Your task to perform on an android device: check battery use Image 0: 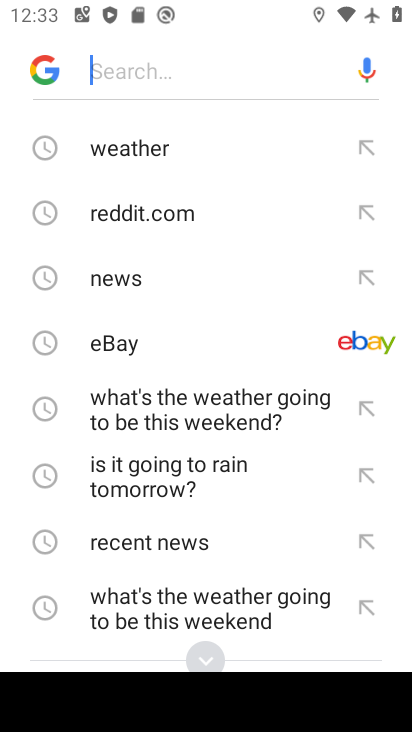
Step 0: press home button
Your task to perform on an android device: check battery use Image 1: 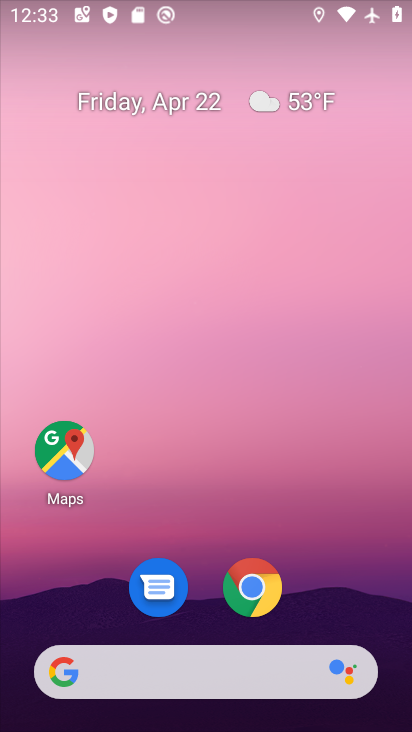
Step 1: drag from (123, 668) to (282, 143)
Your task to perform on an android device: check battery use Image 2: 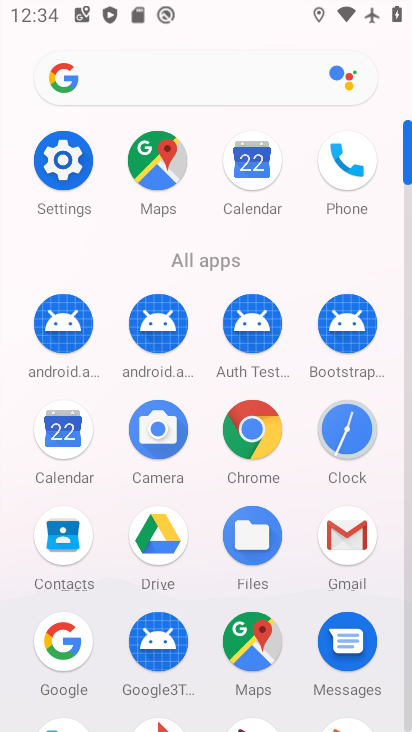
Step 2: click (56, 174)
Your task to perform on an android device: check battery use Image 3: 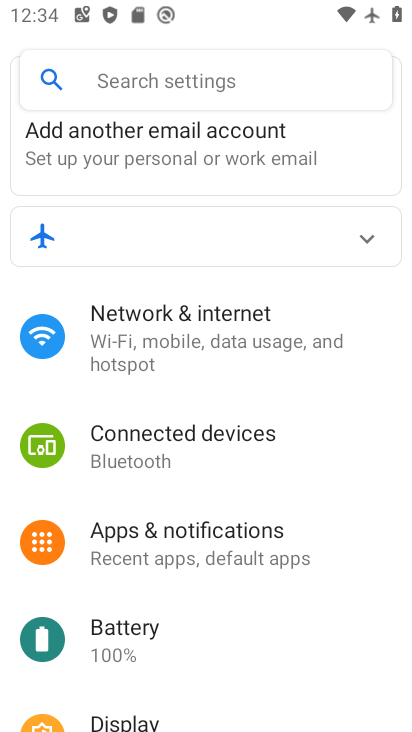
Step 3: click (139, 625)
Your task to perform on an android device: check battery use Image 4: 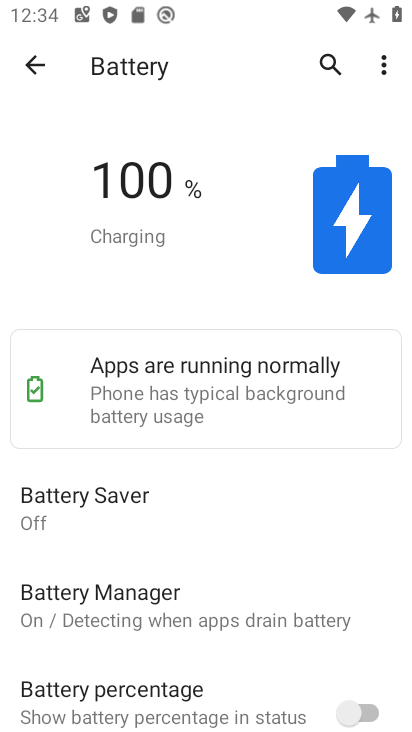
Step 4: click (384, 49)
Your task to perform on an android device: check battery use Image 5: 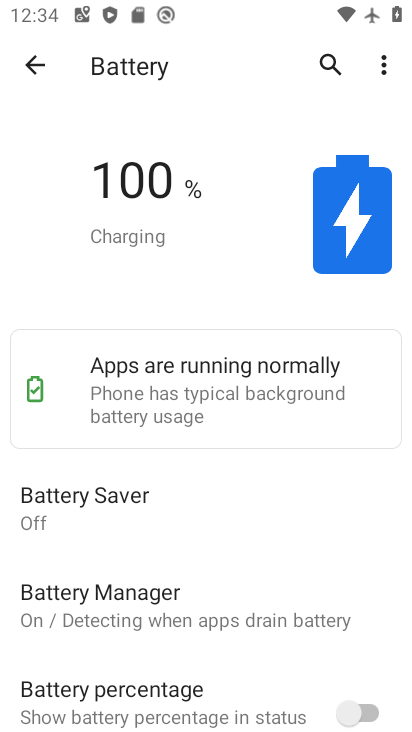
Step 5: click (385, 60)
Your task to perform on an android device: check battery use Image 6: 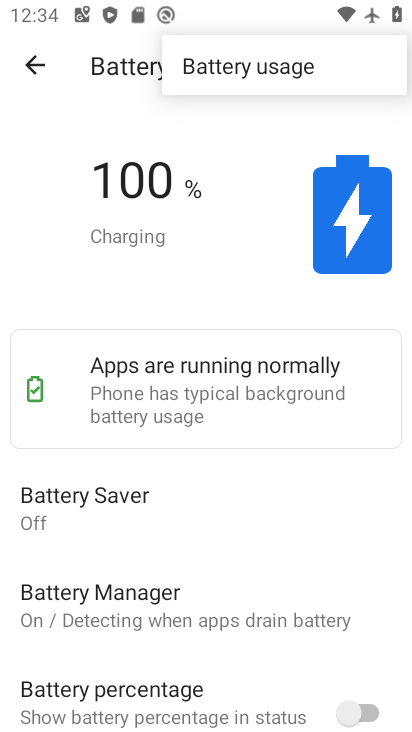
Step 6: click (236, 60)
Your task to perform on an android device: check battery use Image 7: 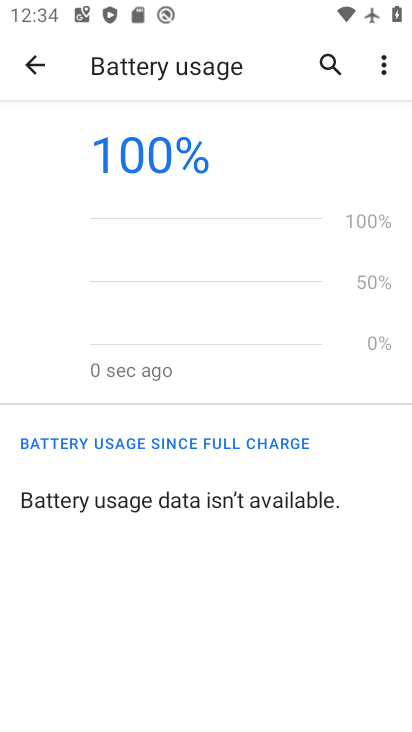
Step 7: task complete